Your task to perform on an android device: open app "Speedtest by Ookla" (install if not already installed) Image 0: 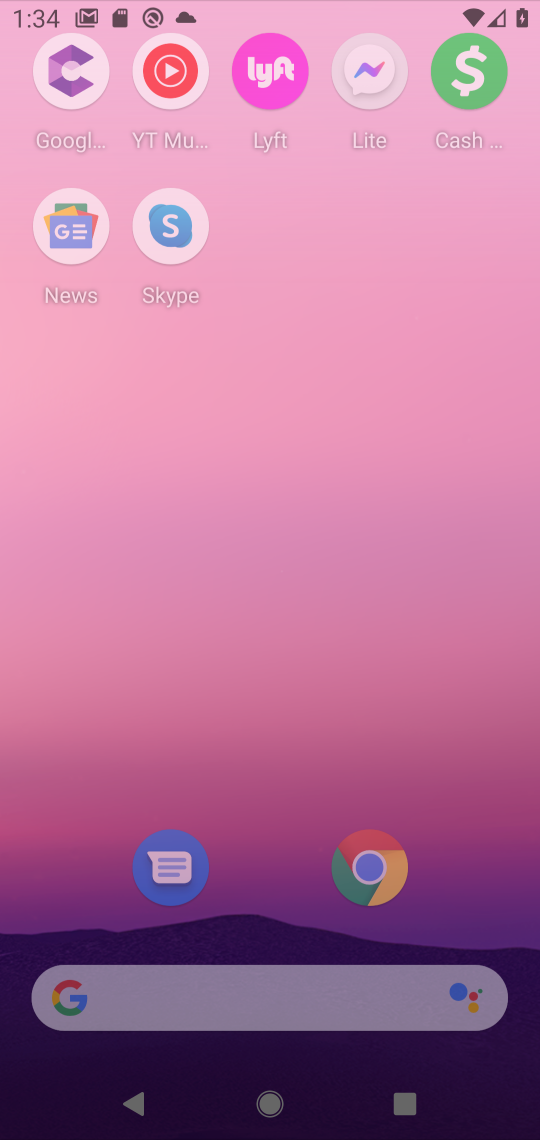
Step 0: press home button
Your task to perform on an android device: open app "Speedtest by Ookla" (install if not already installed) Image 1: 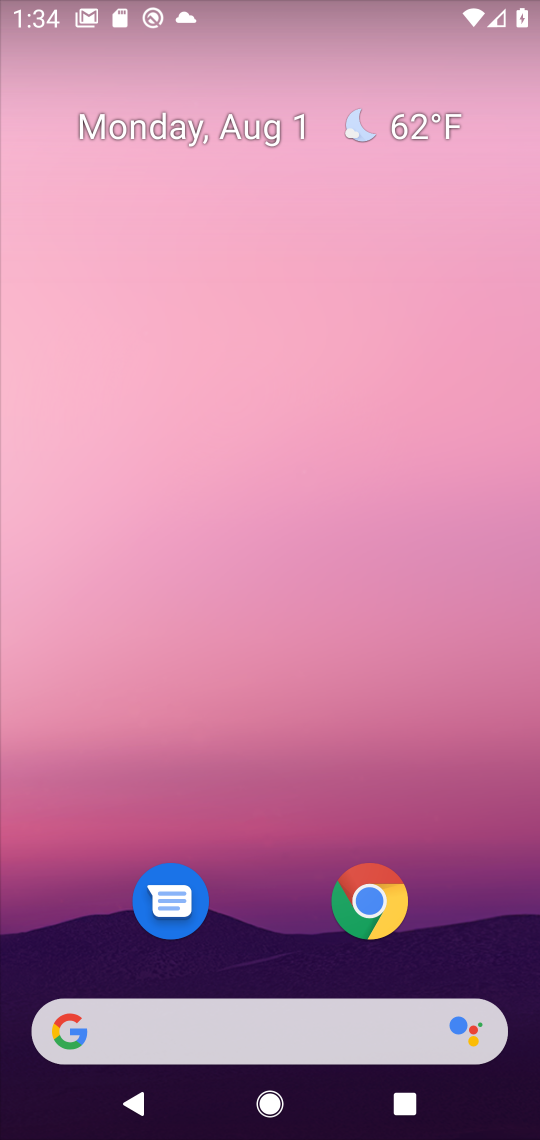
Step 1: drag from (272, 1041) to (357, 108)
Your task to perform on an android device: open app "Speedtest by Ookla" (install if not already installed) Image 2: 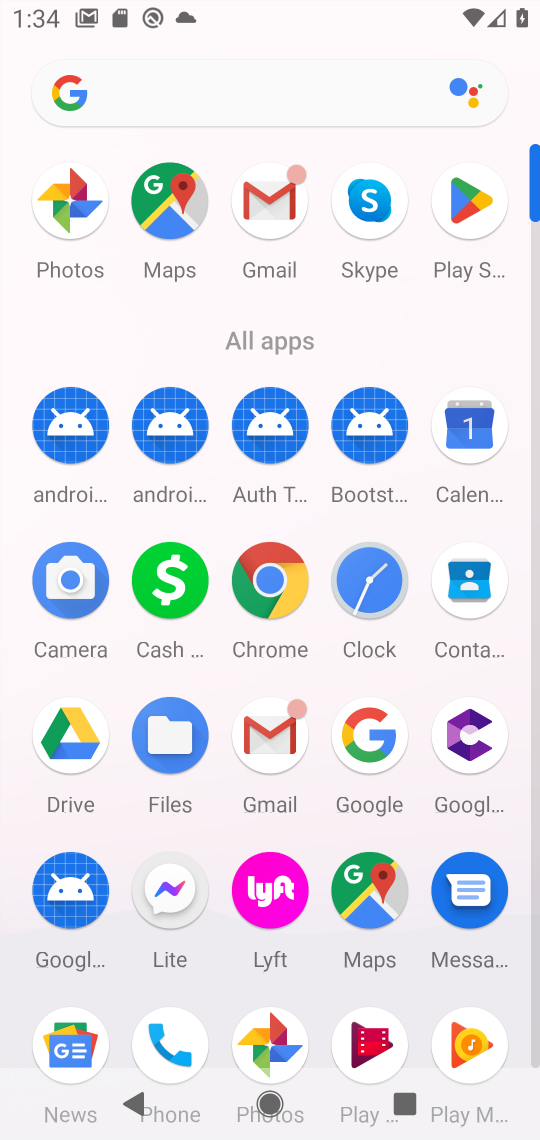
Step 2: click (485, 223)
Your task to perform on an android device: open app "Speedtest by Ookla" (install if not already installed) Image 3: 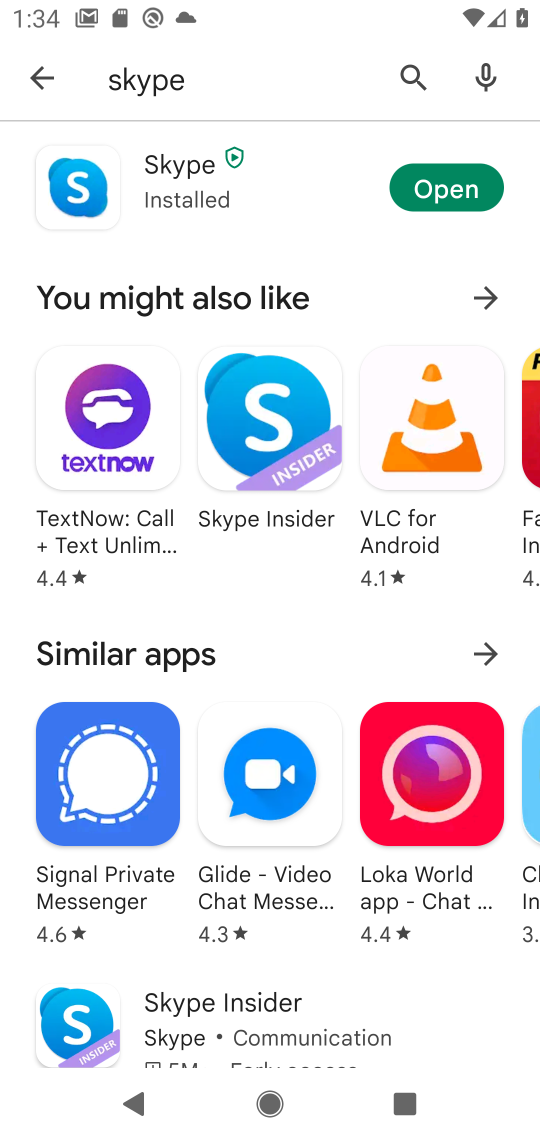
Step 3: click (414, 75)
Your task to perform on an android device: open app "Speedtest by Ookla" (install if not already installed) Image 4: 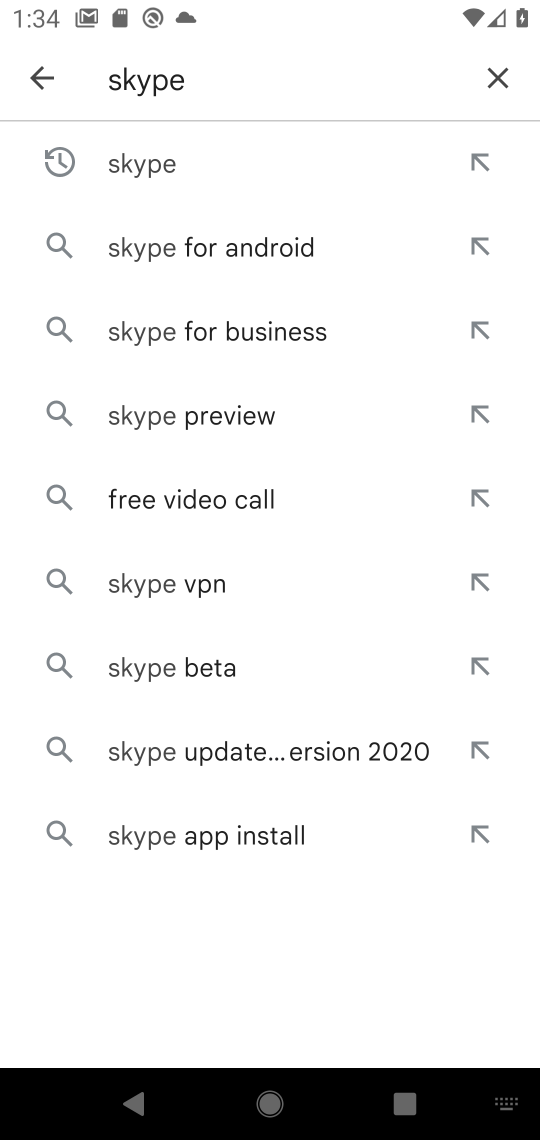
Step 4: click (500, 73)
Your task to perform on an android device: open app "Speedtest by Ookla" (install if not already installed) Image 5: 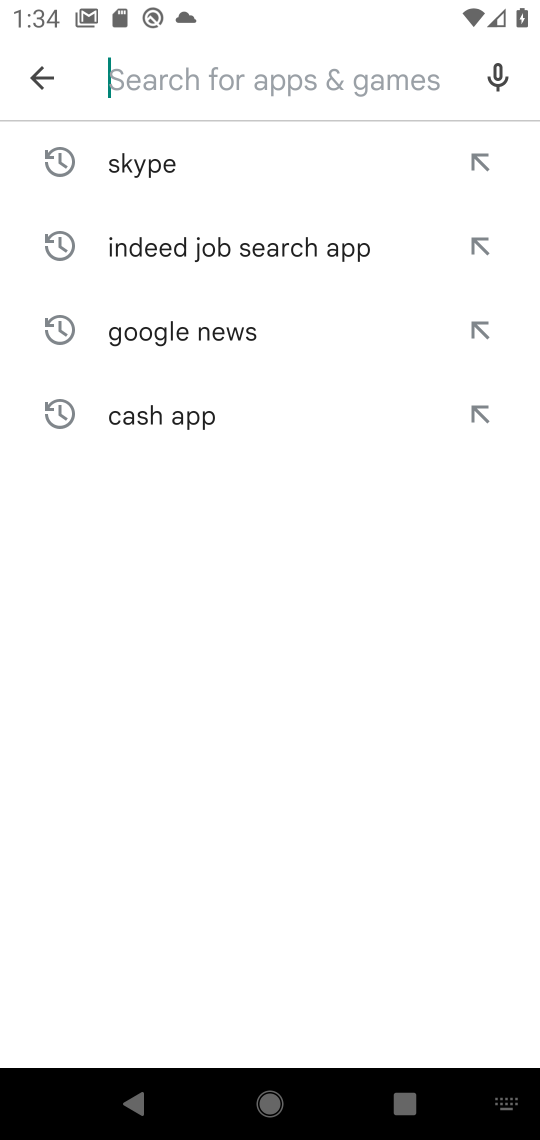
Step 5: type "Speedtest by Ookla"
Your task to perform on an android device: open app "Speedtest by Ookla" (install if not already installed) Image 6: 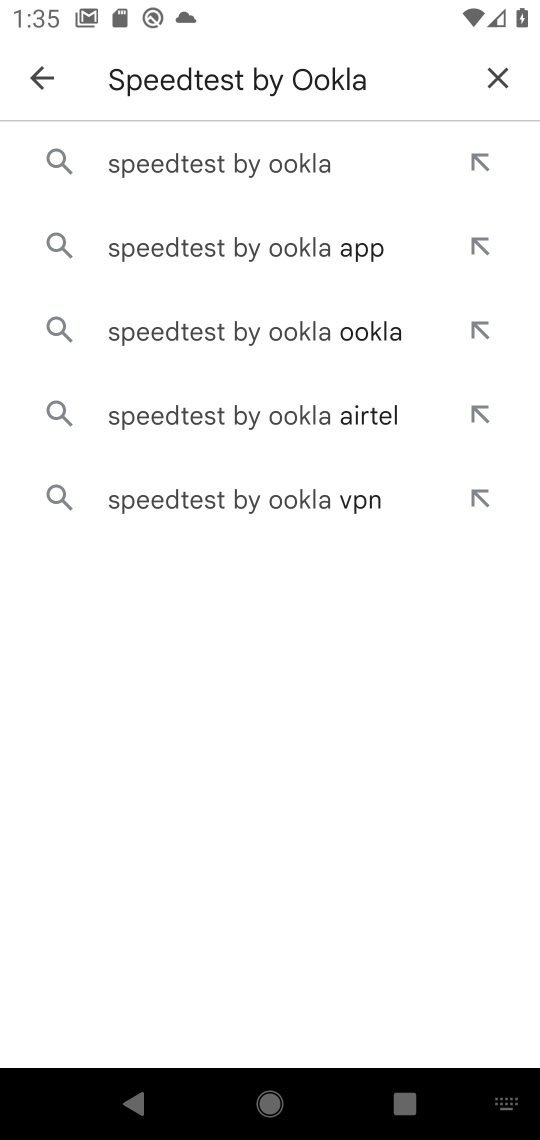
Step 6: click (226, 146)
Your task to perform on an android device: open app "Speedtest by Ookla" (install if not already installed) Image 7: 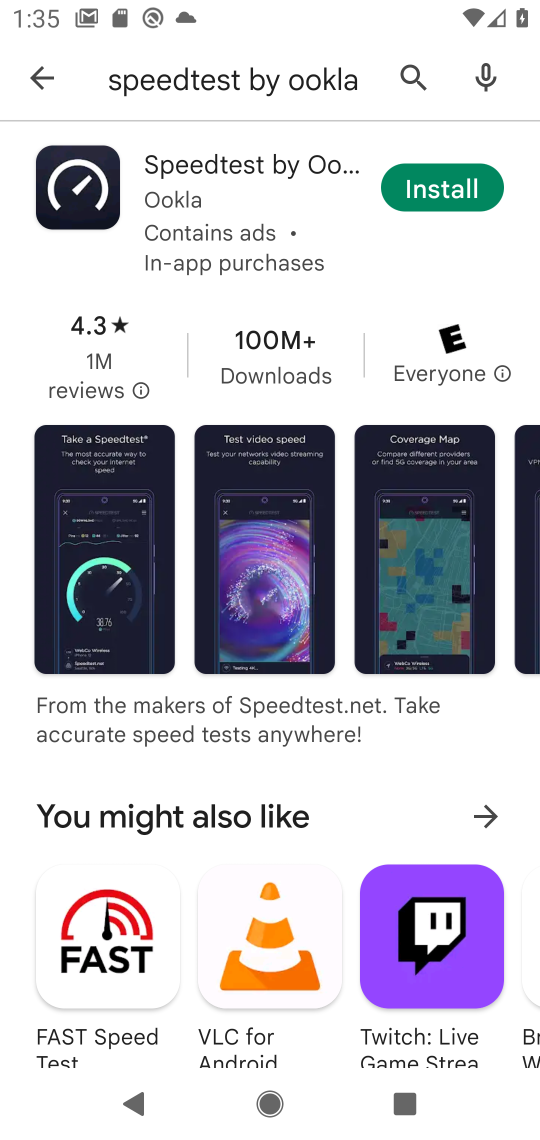
Step 7: click (454, 185)
Your task to perform on an android device: open app "Speedtest by Ookla" (install if not already installed) Image 8: 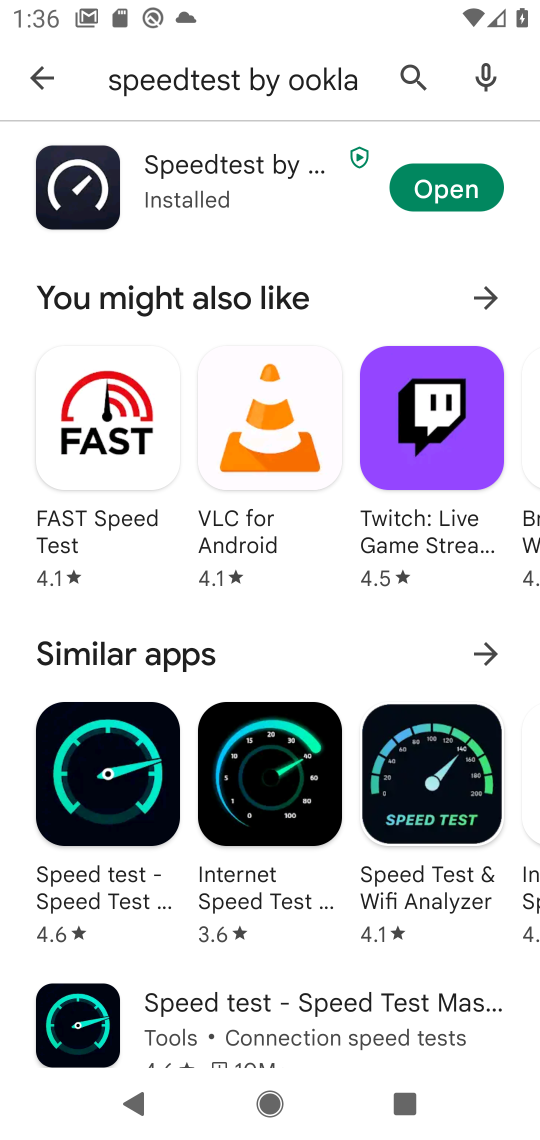
Step 8: click (436, 181)
Your task to perform on an android device: open app "Speedtest by Ookla" (install if not already installed) Image 9: 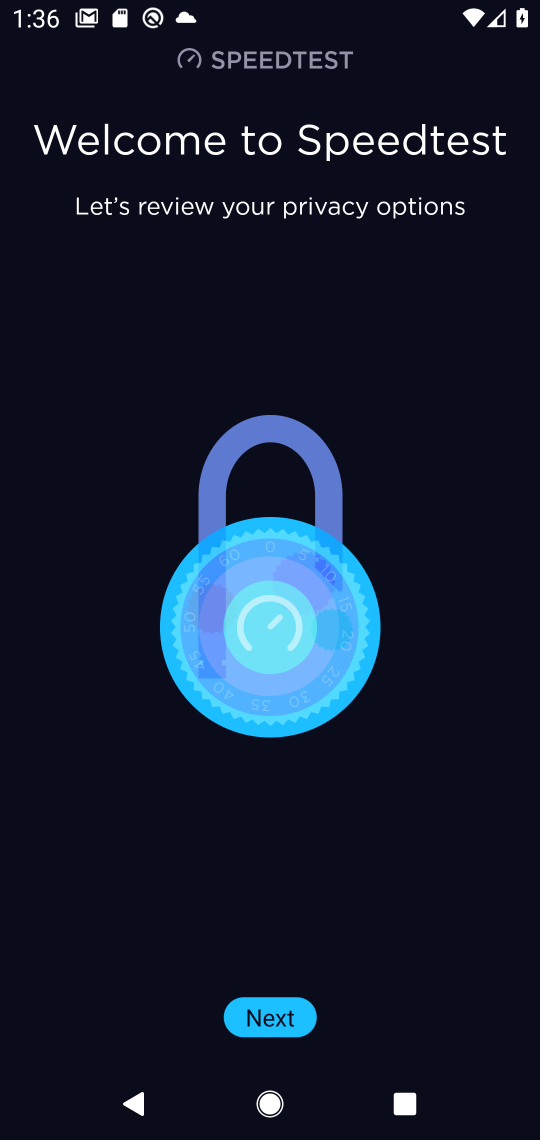
Step 9: task complete